Your task to perform on an android device: See recent photos Image 0: 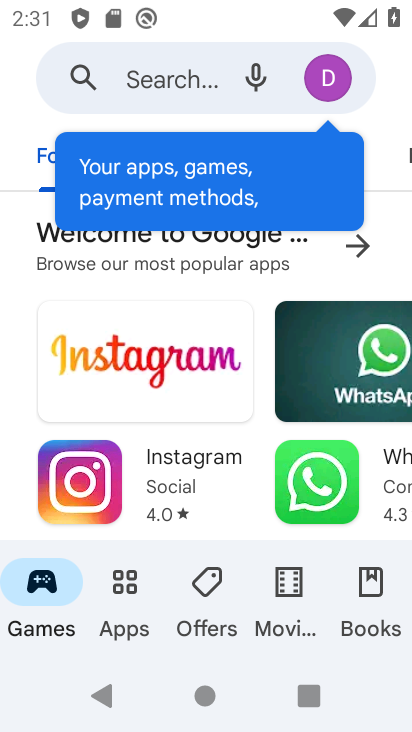
Step 0: press back button
Your task to perform on an android device: See recent photos Image 1: 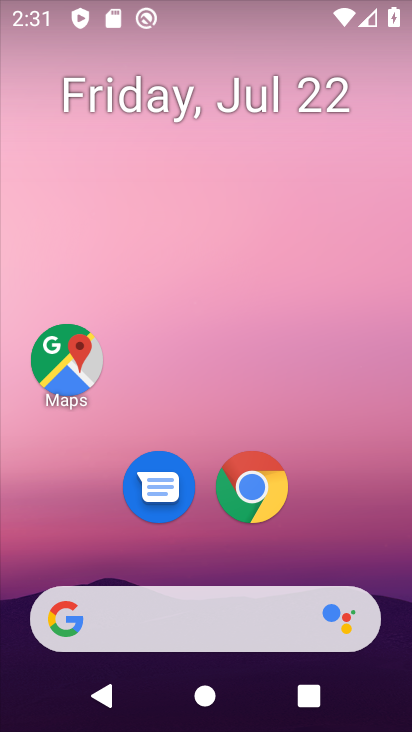
Step 1: drag from (164, 561) to (260, 10)
Your task to perform on an android device: See recent photos Image 2: 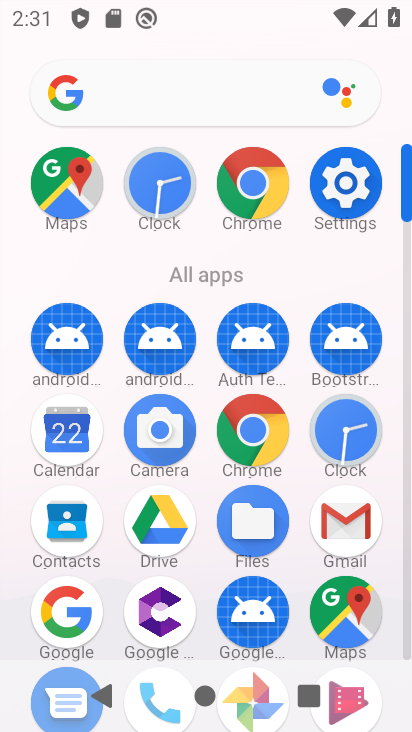
Step 2: drag from (197, 546) to (252, 130)
Your task to perform on an android device: See recent photos Image 3: 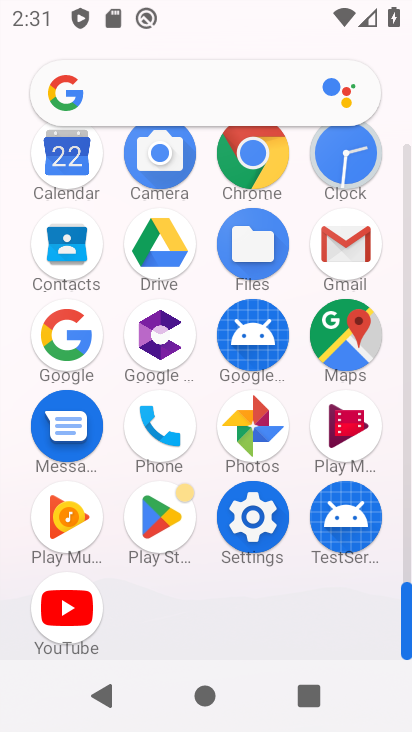
Step 3: click (261, 426)
Your task to perform on an android device: See recent photos Image 4: 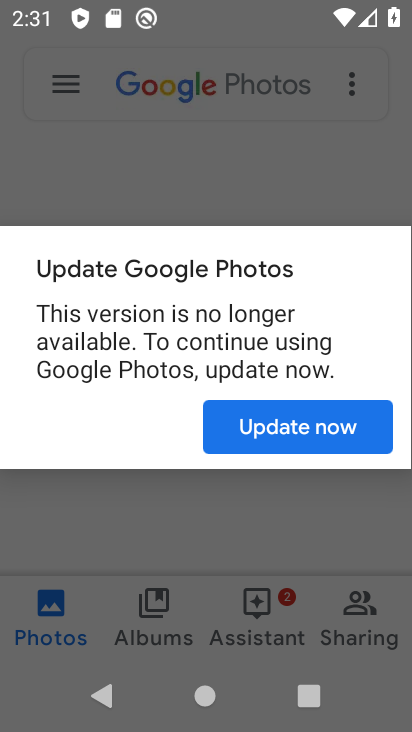
Step 4: click (52, 590)
Your task to perform on an android device: See recent photos Image 5: 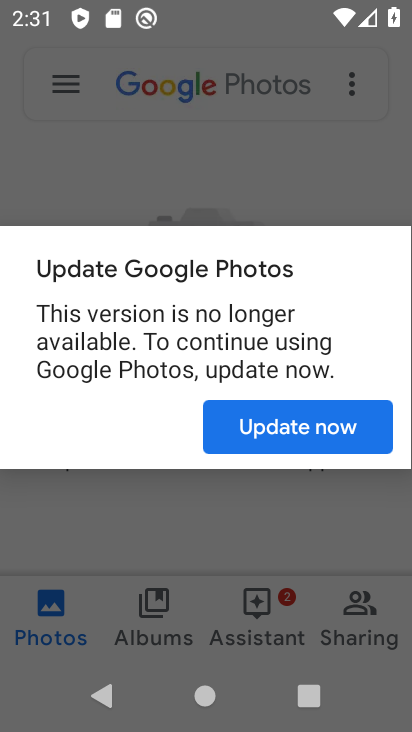
Step 5: click (268, 433)
Your task to perform on an android device: See recent photos Image 6: 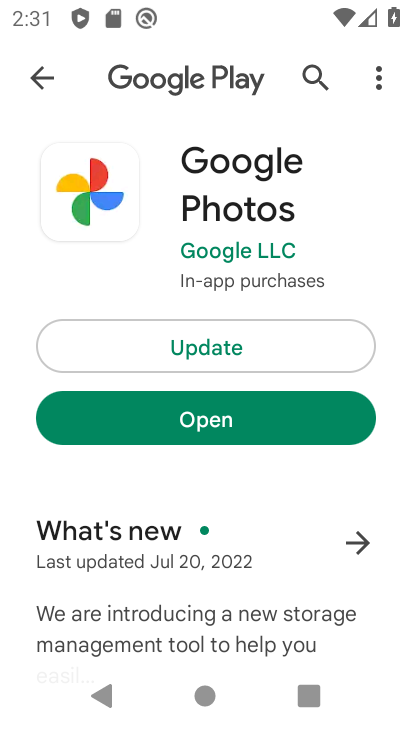
Step 6: click (204, 418)
Your task to perform on an android device: See recent photos Image 7: 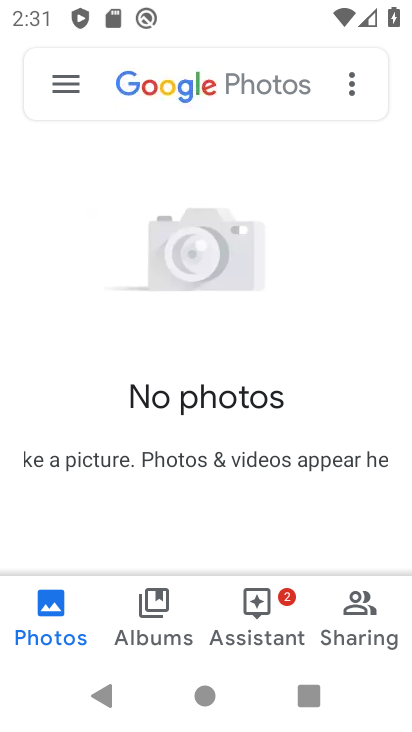
Step 7: task complete